Your task to perform on an android device: Open wifi settings Image 0: 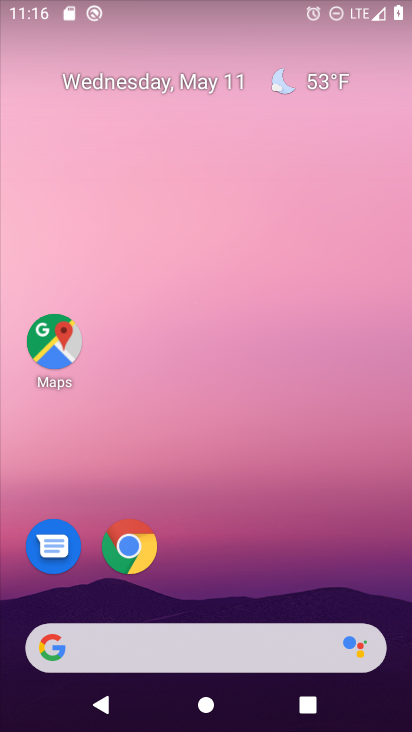
Step 0: drag from (392, 661) to (253, 194)
Your task to perform on an android device: Open wifi settings Image 1: 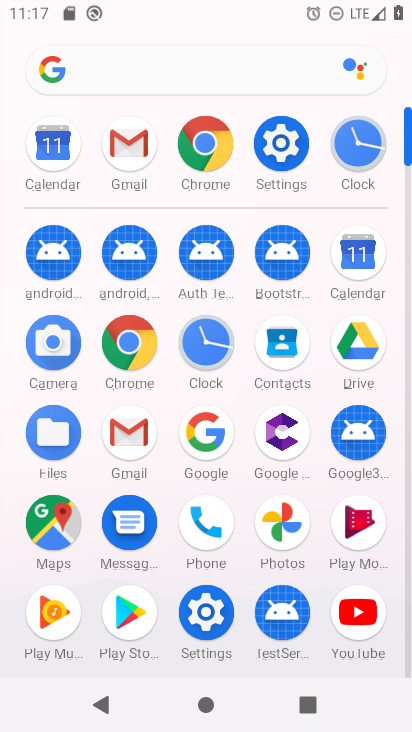
Step 1: click (212, 623)
Your task to perform on an android device: Open wifi settings Image 2: 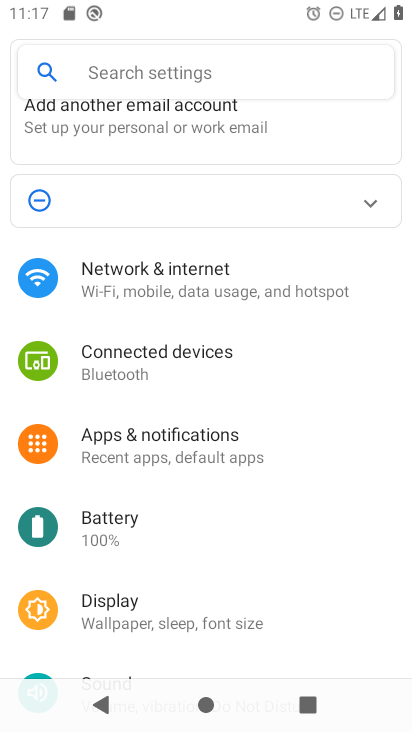
Step 2: click (152, 259)
Your task to perform on an android device: Open wifi settings Image 3: 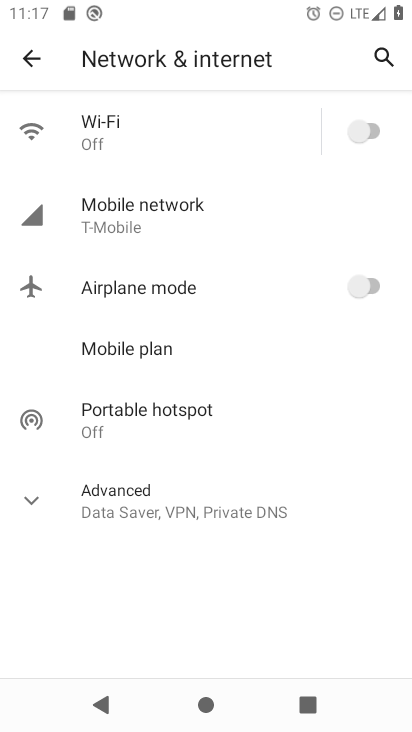
Step 3: click (192, 136)
Your task to perform on an android device: Open wifi settings Image 4: 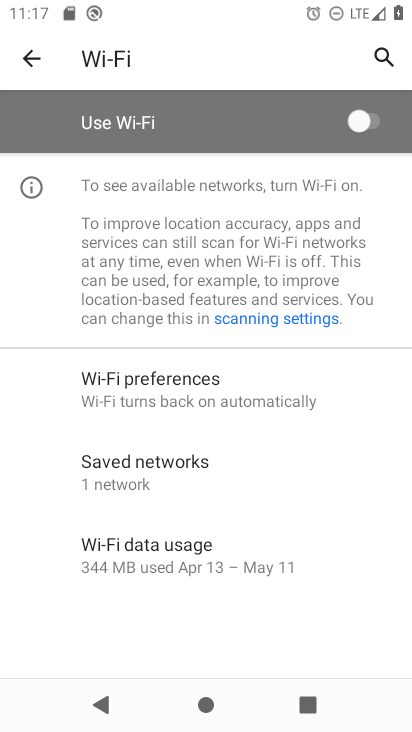
Step 4: task complete